Your task to perform on an android device: turn on priority inbox in the gmail app Image 0: 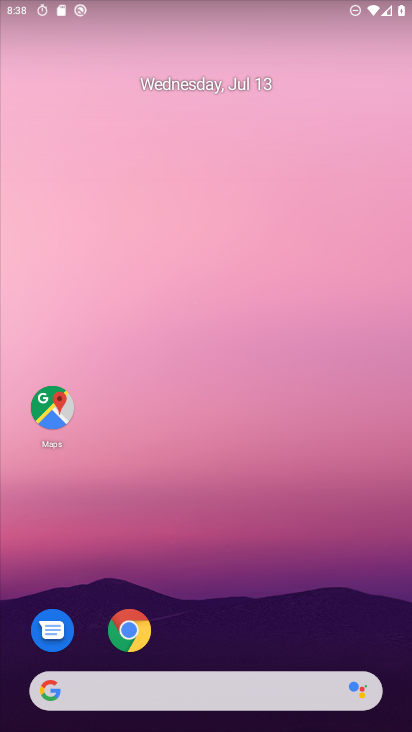
Step 0: drag from (389, 663) to (161, 51)
Your task to perform on an android device: turn on priority inbox in the gmail app Image 1: 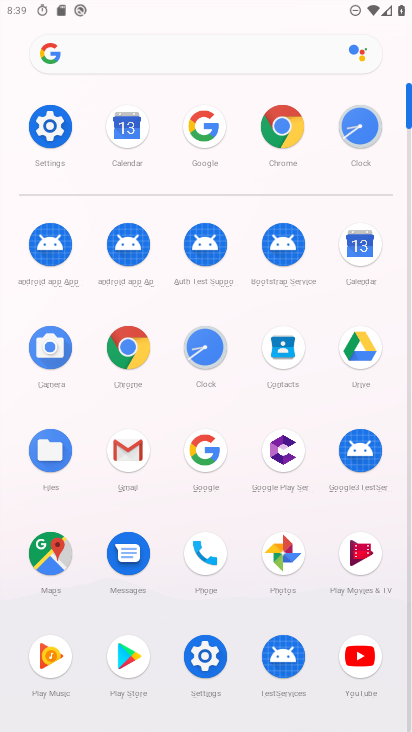
Step 1: click (128, 465)
Your task to perform on an android device: turn on priority inbox in the gmail app Image 2: 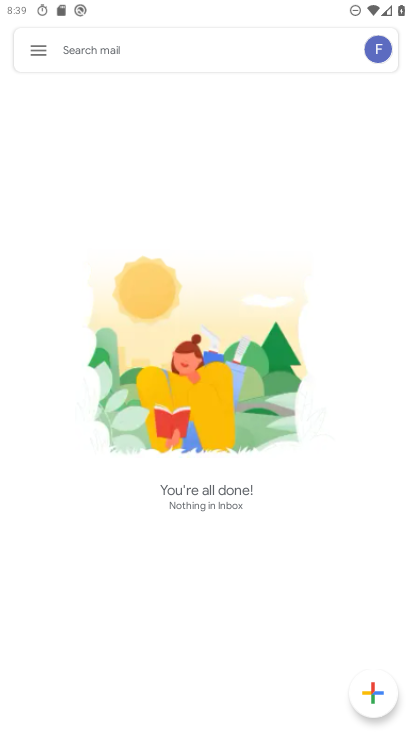
Step 2: click (32, 53)
Your task to perform on an android device: turn on priority inbox in the gmail app Image 3: 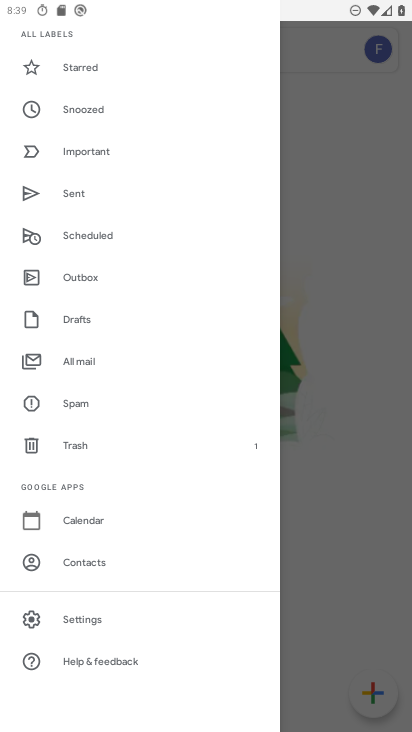
Step 3: click (97, 610)
Your task to perform on an android device: turn on priority inbox in the gmail app Image 4: 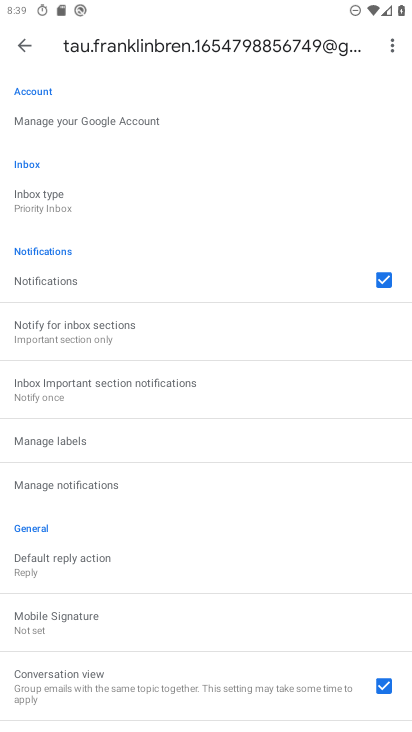
Step 4: click (71, 205)
Your task to perform on an android device: turn on priority inbox in the gmail app Image 5: 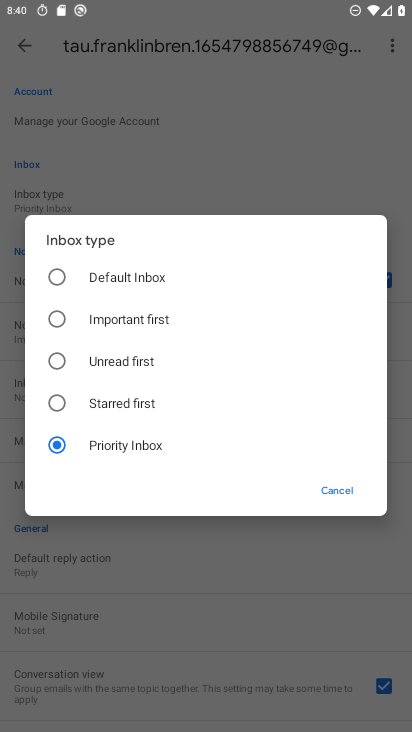
Step 5: task complete